Your task to perform on an android device: see tabs open on other devices in the chrome app Image 0: 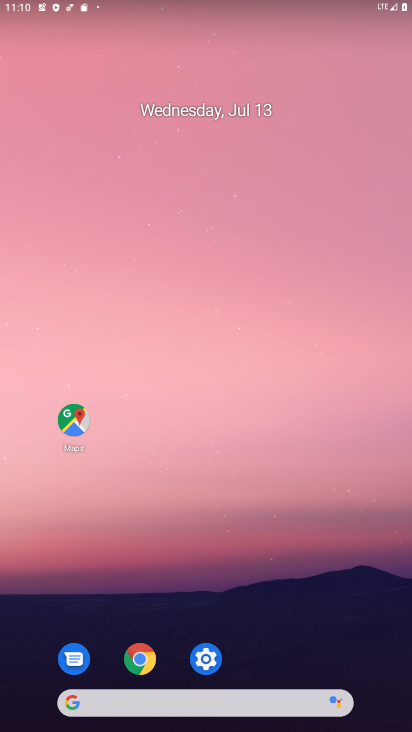
Step 0: press back button
Your task to perform on an android device: see tabs open on other devices in the chrome app Image 1: 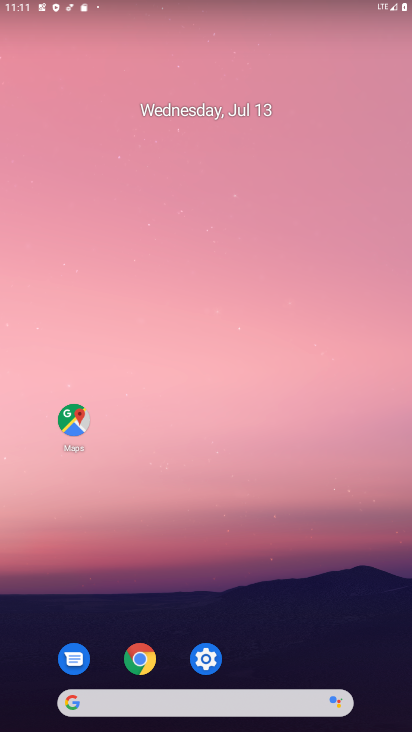
Step 1: click (156, 118)
Your task to perform on an android device: see tabs open on other devices in the chrome app Image 2: 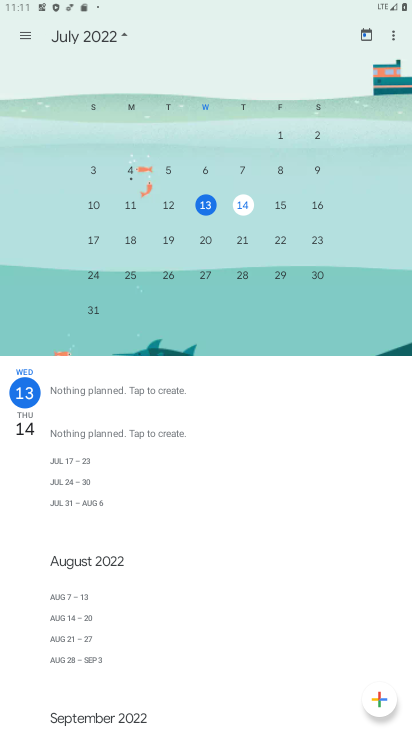
Step 2: click (237, 223)
Your task to perform on an android device: see tabs open on other devices in the chrome app Image 3: 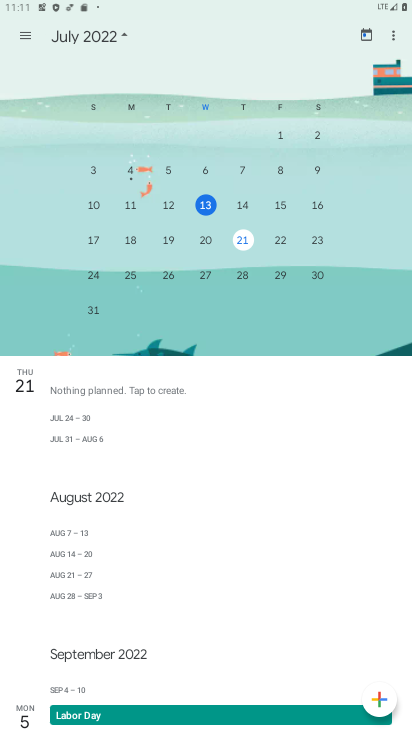
Step 3: press back button
Your task to perform on an android device: see tabs open on other devices in the chrome app Image 4: 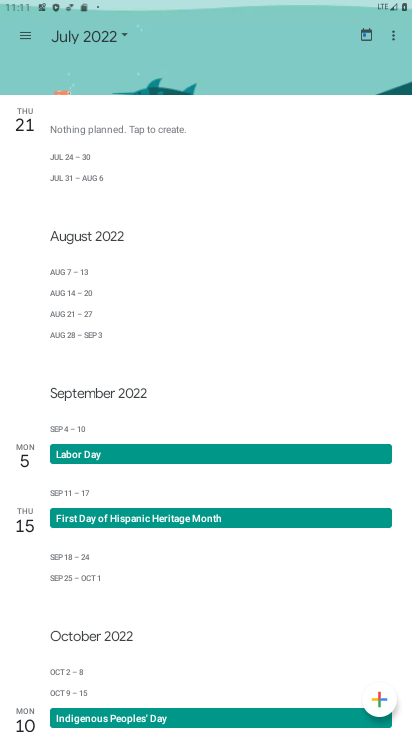
Step 4: press home button
Your task to perform on an android device: see tabs open on other devices in the chrome app Image 5: 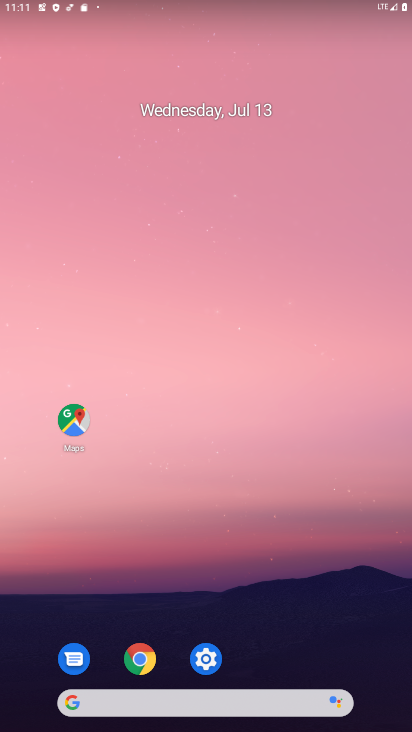
Step 5: click (173, 240)
Your task to perform on an android device: see tabs open on other devices in the chrome app Image 6: 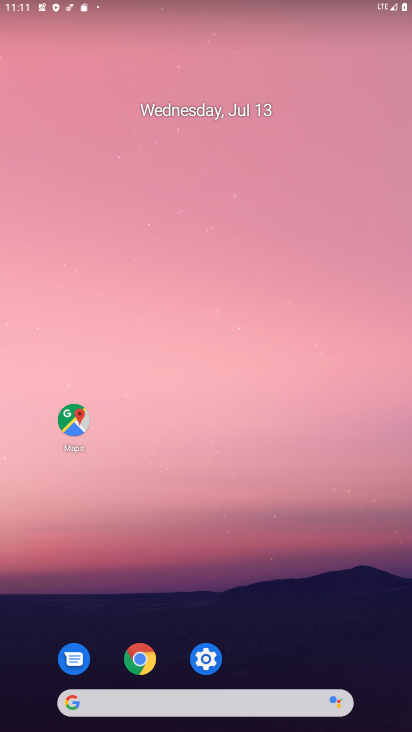
Step 6: click (121, 43)
Your task to perform on an android device: see tabs open on other devices in the chrome app Image 7: 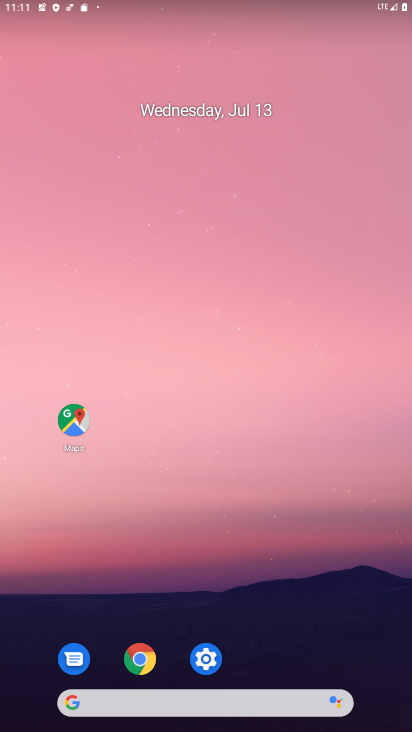
Step 7: drag from (303, 701) to (156, 100)
Your task to perform on an android device: see tabs open on other devices in the chrome app Image 8: 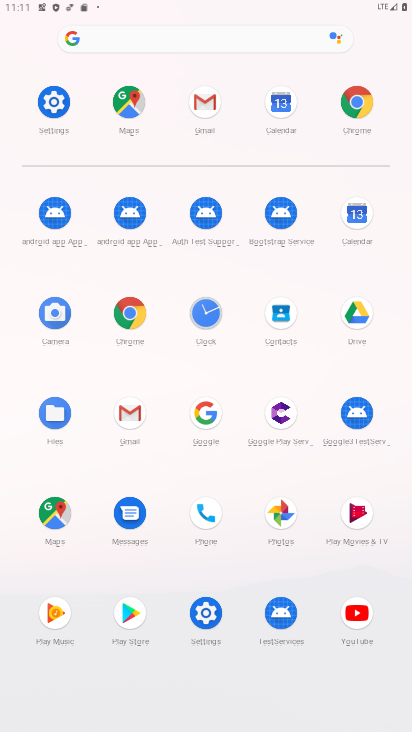
Step 8: click (356, 92)
Your task to perform on an android device: see tabs open on other devices in the chrome app Image 9: 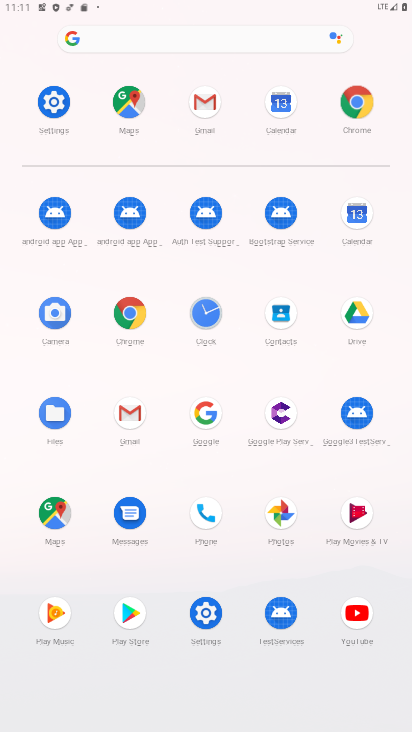
Step 9: click (356, 92)
Your task to perform on an android device: see tabs open on other devices in the chrome app Image 10: 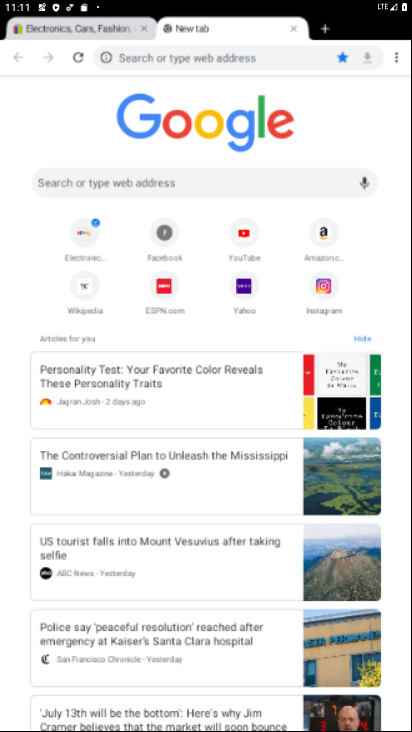
Step 10: click (356, 92)
Your task to perform on an android device: see tabs open on other devices in the chrome app Image 11: 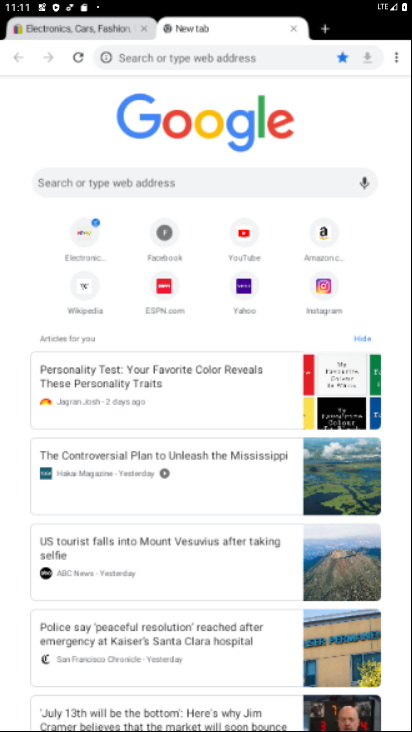
Step 11: click (356, 92)
Your task to perform on an android device: see tabs open on other devices in the chrome app Image 12: 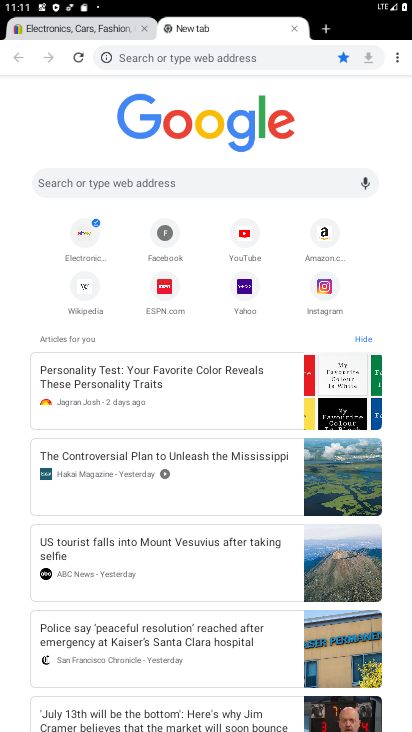
Step 12: drag from (398, 57) to (280, 142)
Your task to perform on an android device: see tabs open on other devices in the chrome app Image 13: 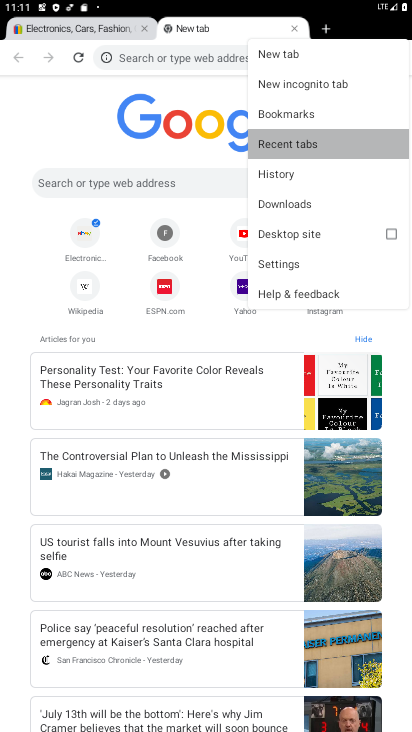
Step 13: click (280, 142)
Your task to perform on an android device: see tabs open on other devices in the chrome app Image 14: 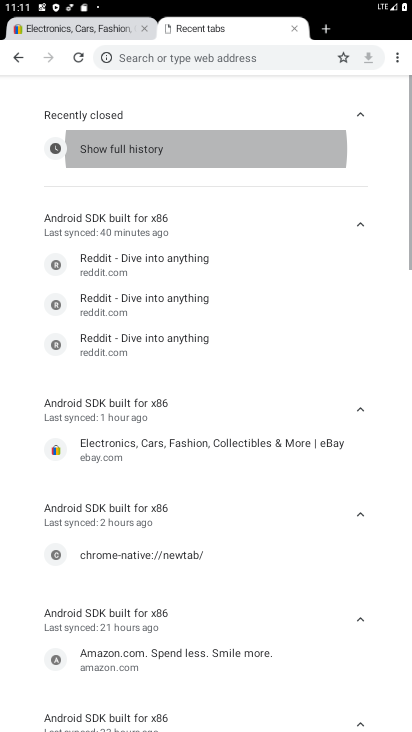
Step 14: click (280, 142)
Your task to perform on an android device: see tabs open on other devices in the chrome app Image 15: 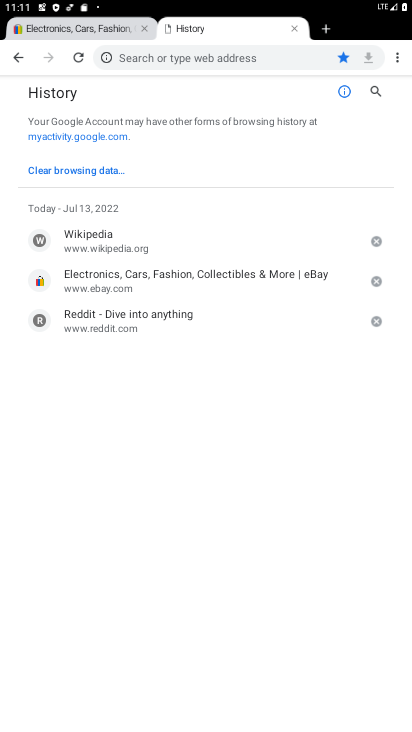
Step 15: click (18, 51)
Your task to perform on an android device: see tabs open on other devices in the chrome app Image 16: 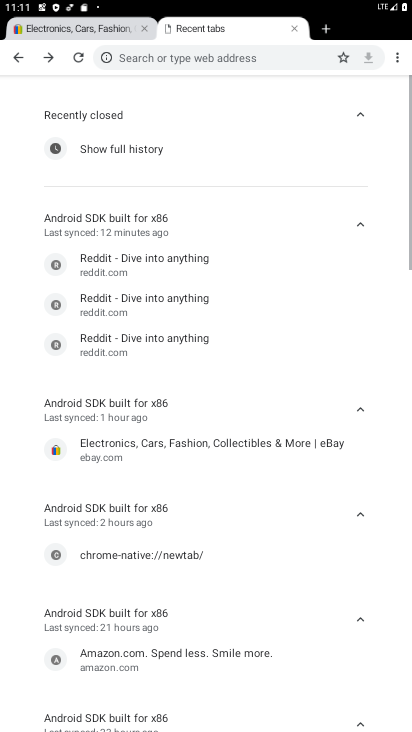
Step 16: click (397, 55)
Your task to perform on an android device: see tabs open on other devices in the chrome app Image 17: 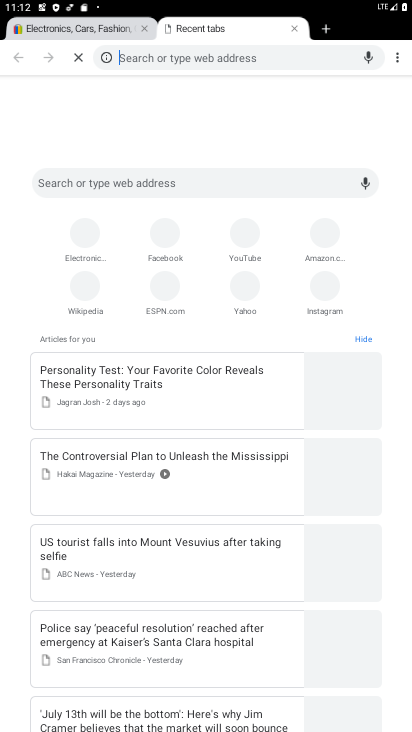
Step 17: task complete